Your task to perform on an android device: turn off priority inbox in the gmail app Image 0: 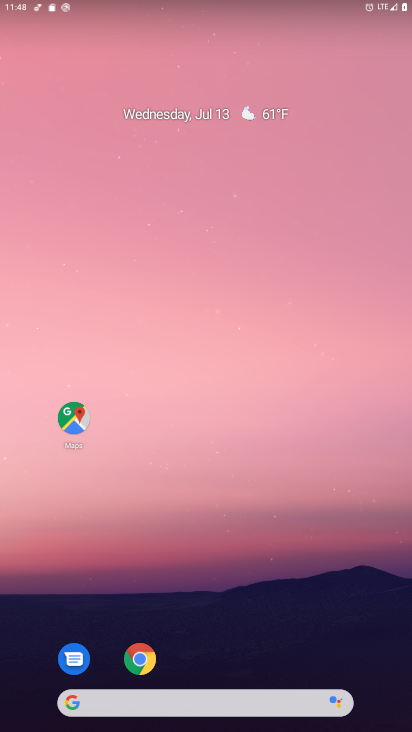
Step 0: drag from (235, 669) to (272, 64)
Your task to perform on an android device: turn off priority inbox in the gmail app Image 1: 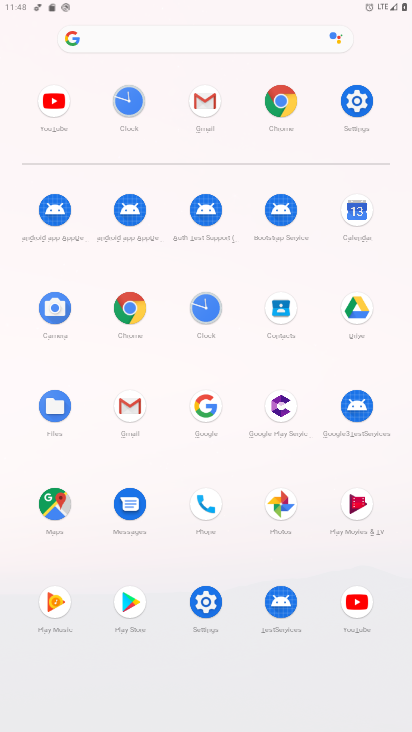
Step 1: click (131, 398)
Your task to perform on an android device: turn off priority inbox in the gmail app Image 2: 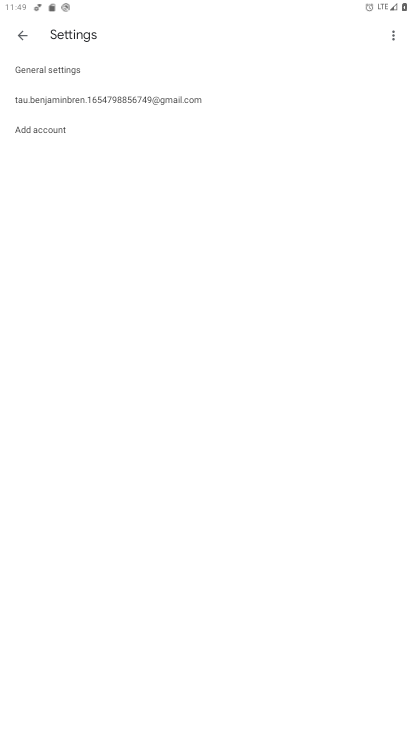
Step 2: click (205, 93)
Your task to perform on an android device: turn off priority inbox in the gmail app Image 3: 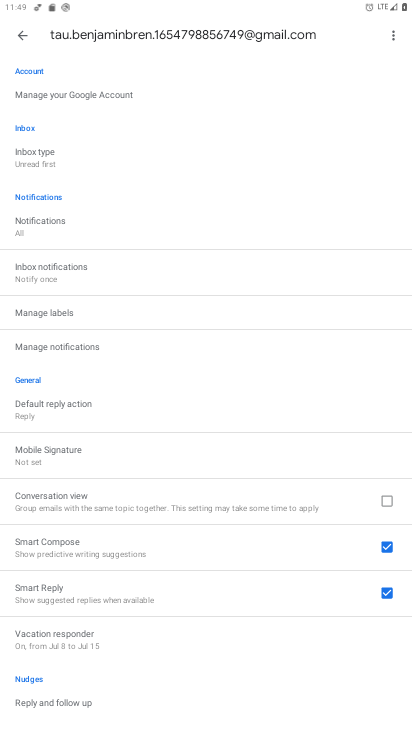
Step 3: click (65, 155)
Your task to perform on an android device: turn off priority inbox in the gmail app Image 4: 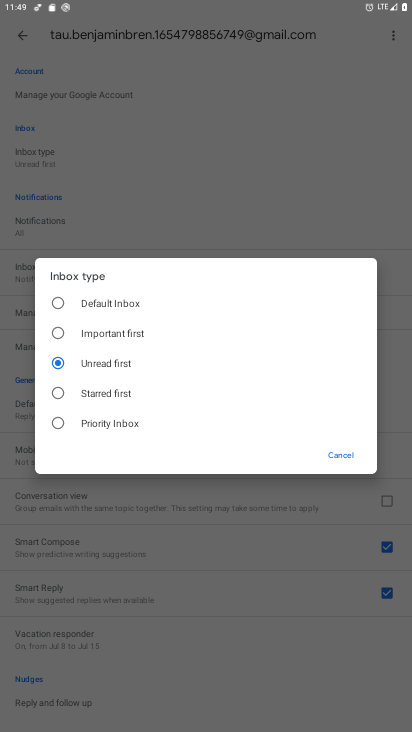
Step 4: click (56, 389)
Your task to perform on an android device: turn off priority inbox in the gmail app Image 5: 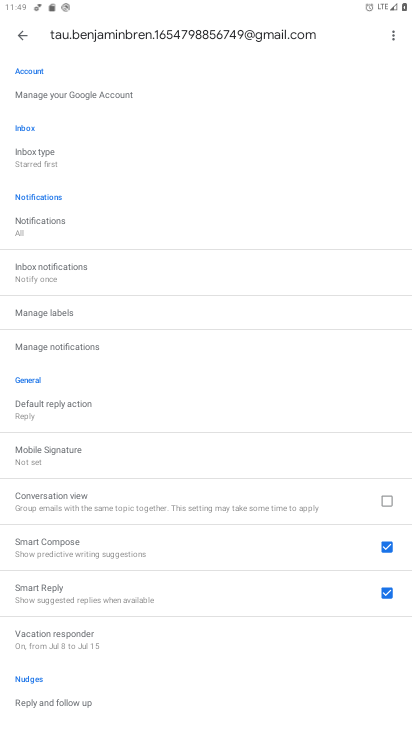
Step 5: task complete